Your task to perform on an android device: Toggle the flashlight Image 0: 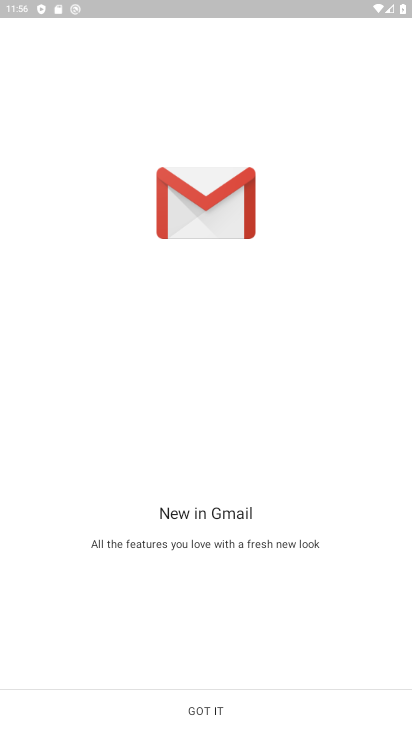
Step 0: press home button
Your task to perform on an android device: Toggle the flashlight Image 1: 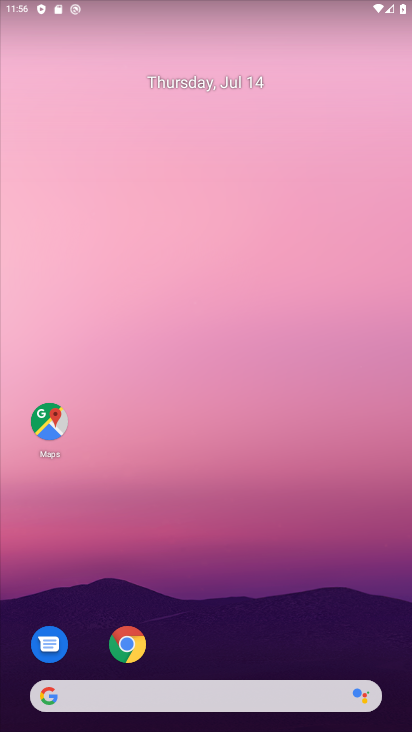
Step 1: drag from (200, 671) to (176, 193)
Your task to perform on an android device: Toggle the flashlight Image 2: 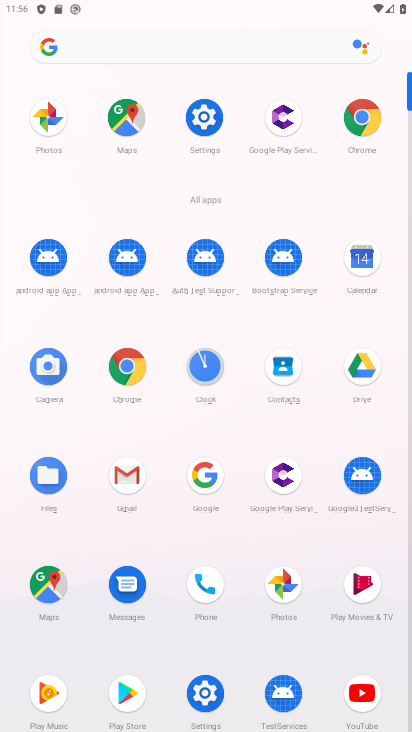
Step 2: click (207, 125)
Your task to perform on an android device: Toggle the flashlight Image 3: 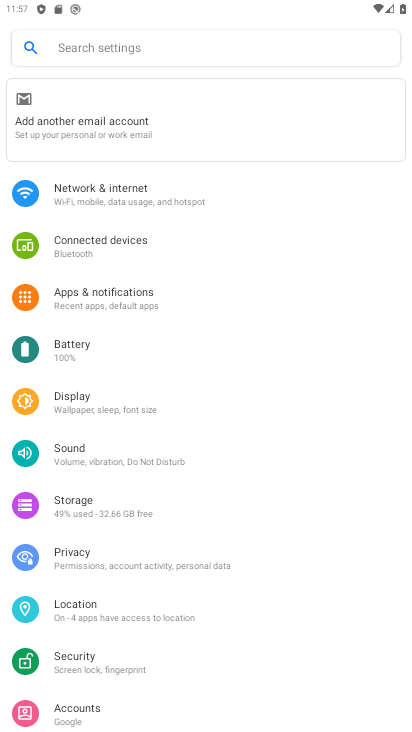
Step 3: task complete